Your task to perform on an android device: turn off airplane mode Image 0: 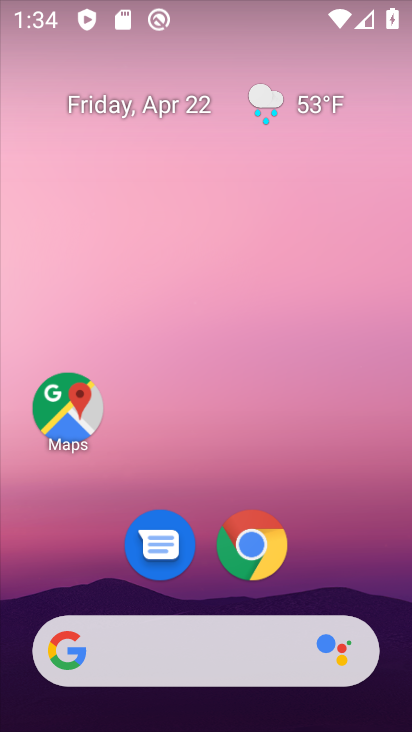
Step 0: drag from (327, 548) to (236, 16)
Your task to perform on an android device: turn off airplane mode Image 1: 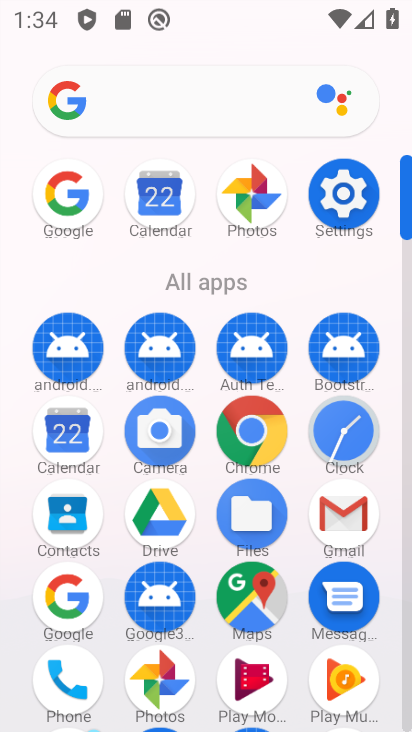
Step 1: click (344, 192)
Your task to perform on an android device: turn off airplane mode Image 2: 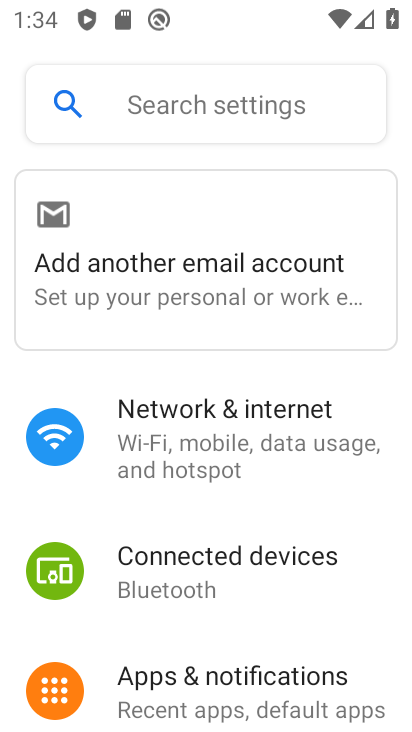
Step 2: click (289, 412)
Your task to perform on an android device: turn off airplane mode Image 3: 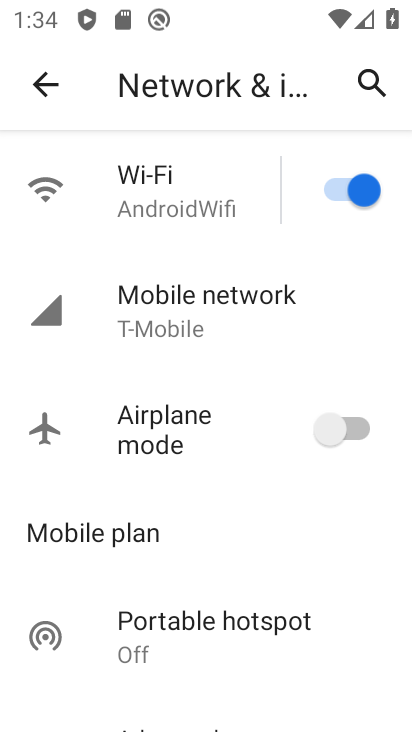
Step 3: task complete